Your task to perform on an android device: toggle javascript in the chrome app Image 0: 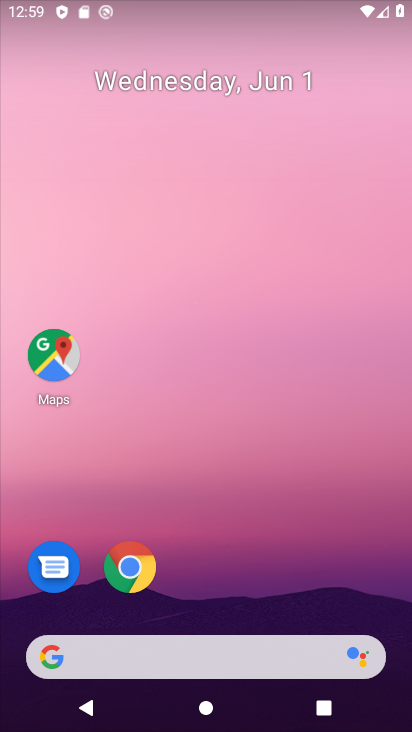
Step 0: click (143, 561)
Your task to perform on an android device: toggle javascript in the chrome app Image 1: 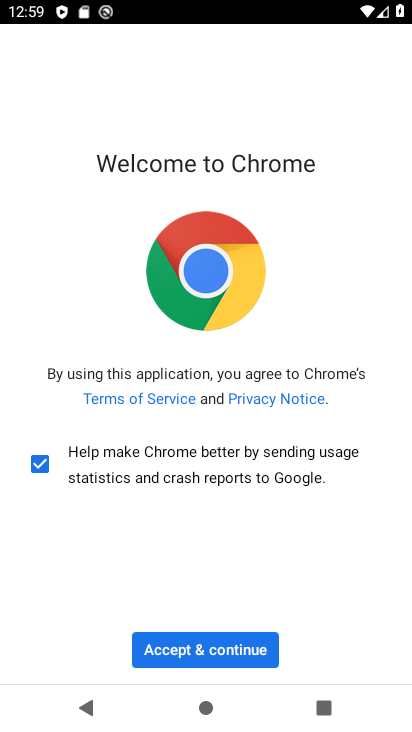
Step 1: click (217, 658)
Your task to perform on an android device: toggle javascript in the chrome app Image 2: 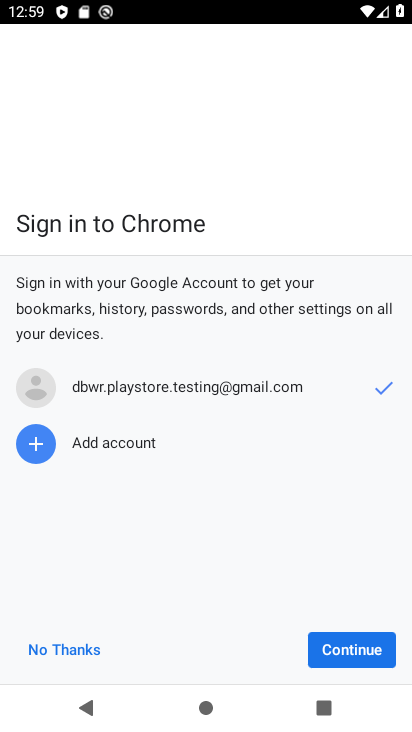
Step 2: click (327, 640)
Your task to perform on an android device: toggle javascript in the chrome app Image 3: 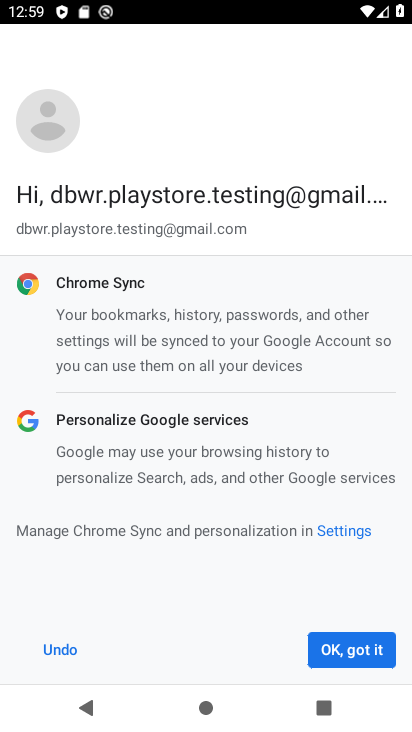
Step 3: click (327, 640)
Your task to perform on an android device: toggle javascript in the chrome app Image 4: 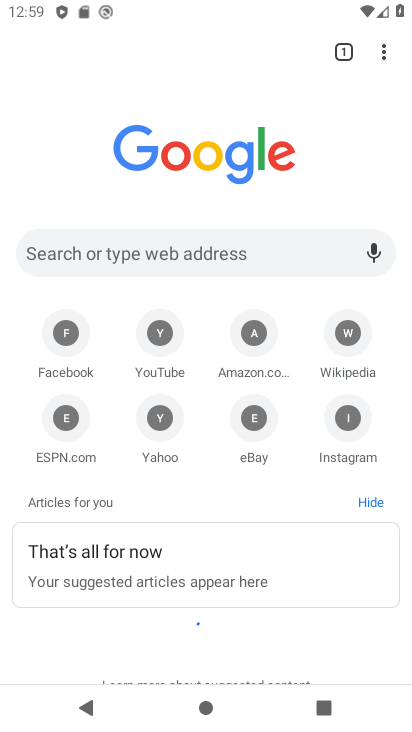
Step 4: click (381, 63)
Your task to perform on an android device: toggle javascript in the chrome app Image 5: 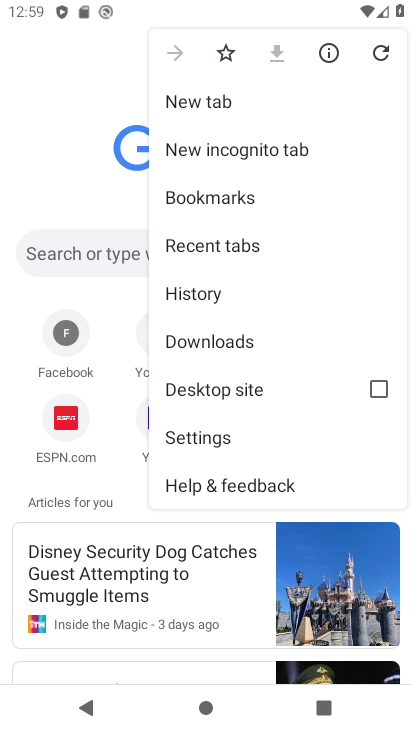
Step 5: click (248, 437)
Your task to perform on an android device: toggle javascript in the chrome app Image 6: 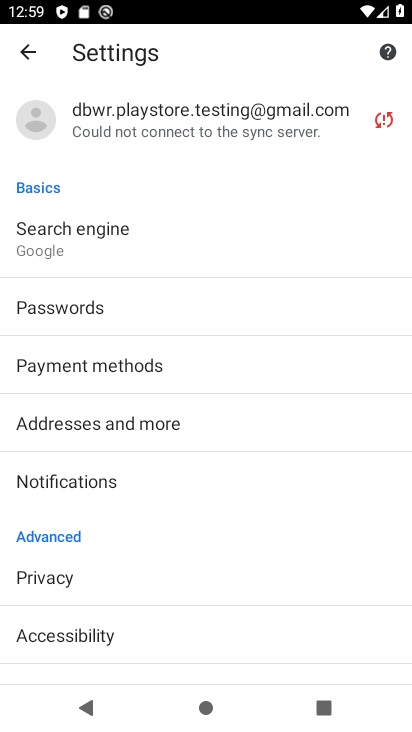
Step 6: drag from (282, 604) to (218, 373)
Your task to perform on an android device: toggle javascript in the chrome app Image 7: 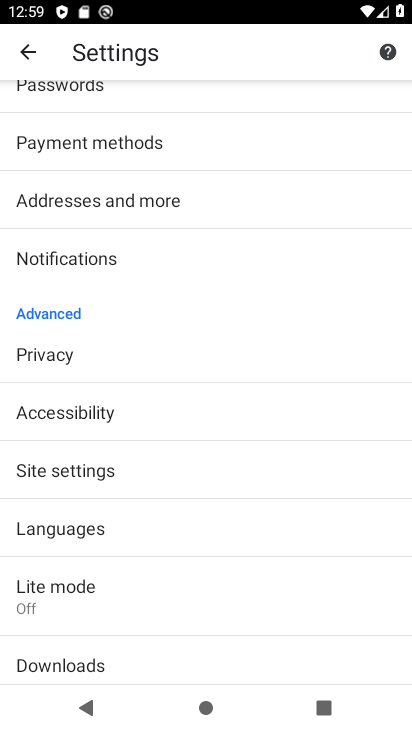
Step 7: click (143, 467)
Your task to perform on an android device: toggle javascript in the chrome app Image 8: 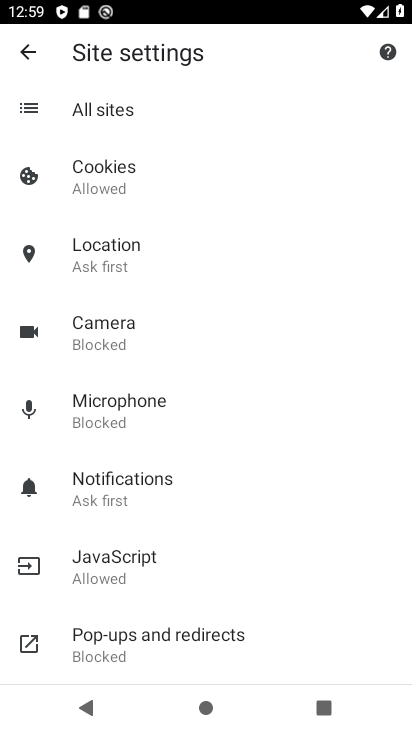
Step 8: click (110, 593)
Your task to perform on an android device: toggle javascript in the chrome app Image 9: 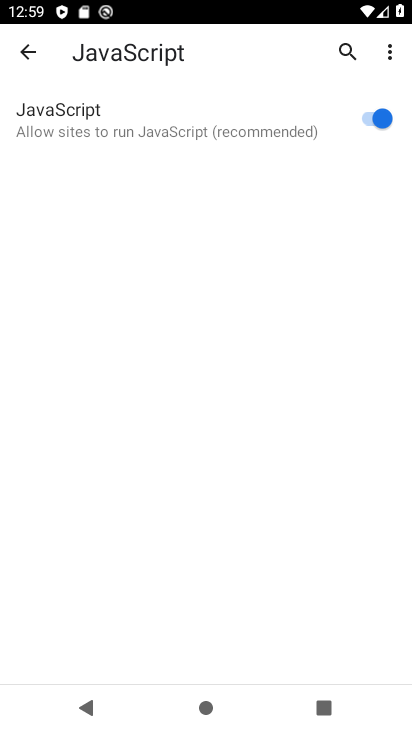
Step 9: click (379, 125)
Your task to perform on an android device: toggle javascript in the chrome app Image 10: 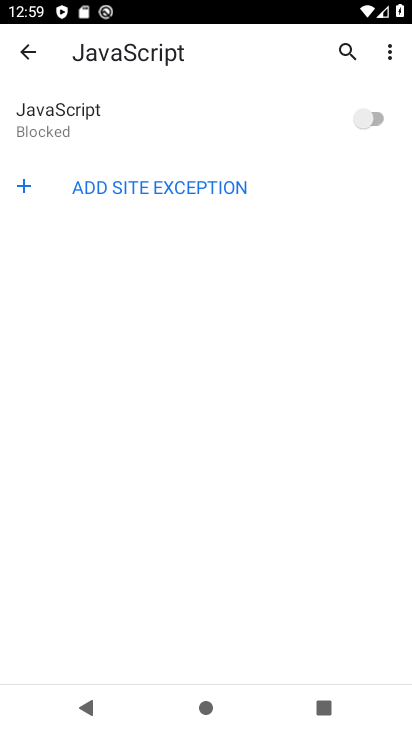
Step 10: task complete